Your task to perform on an android device: Set the phone to "Do not disturb". Image 0: 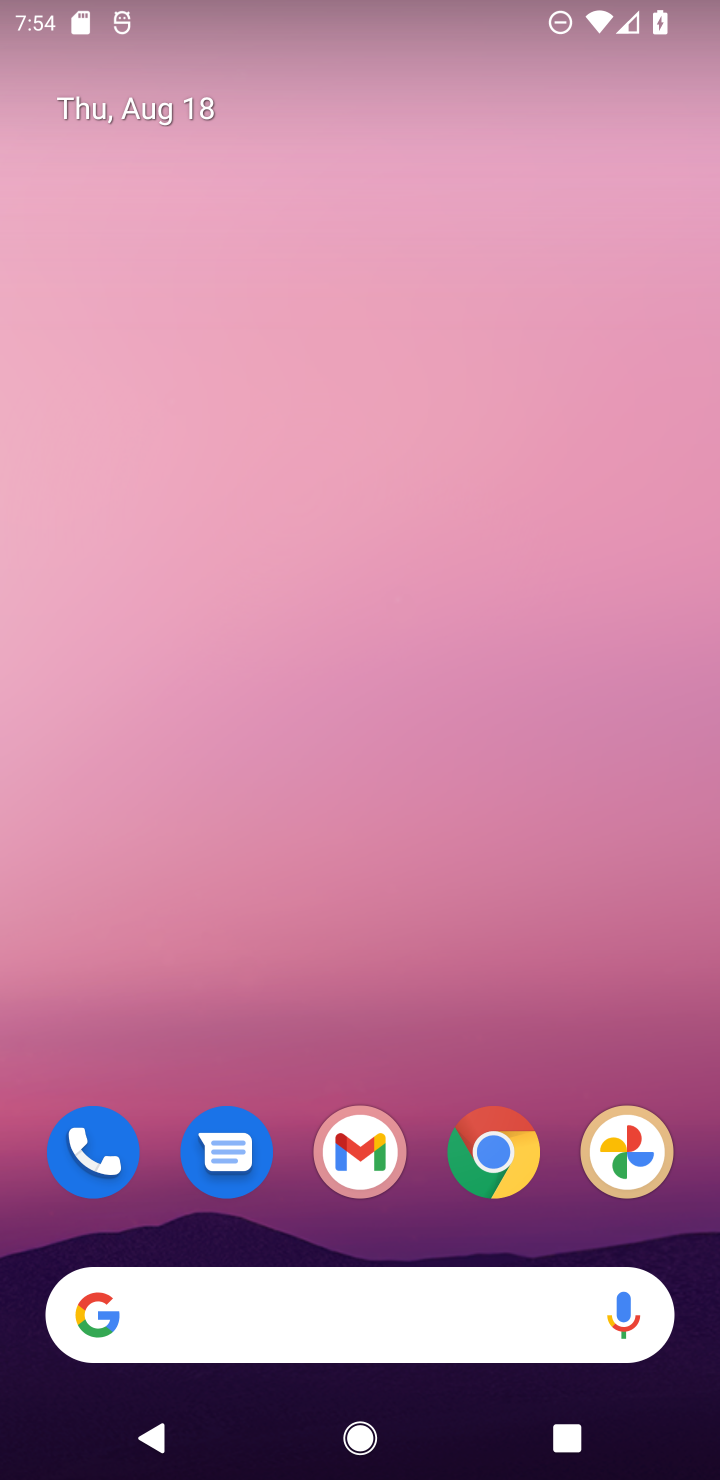
Step 0: press home button
Your task to perform on an android device: Set the phone to "Do not disturb". Image 1: 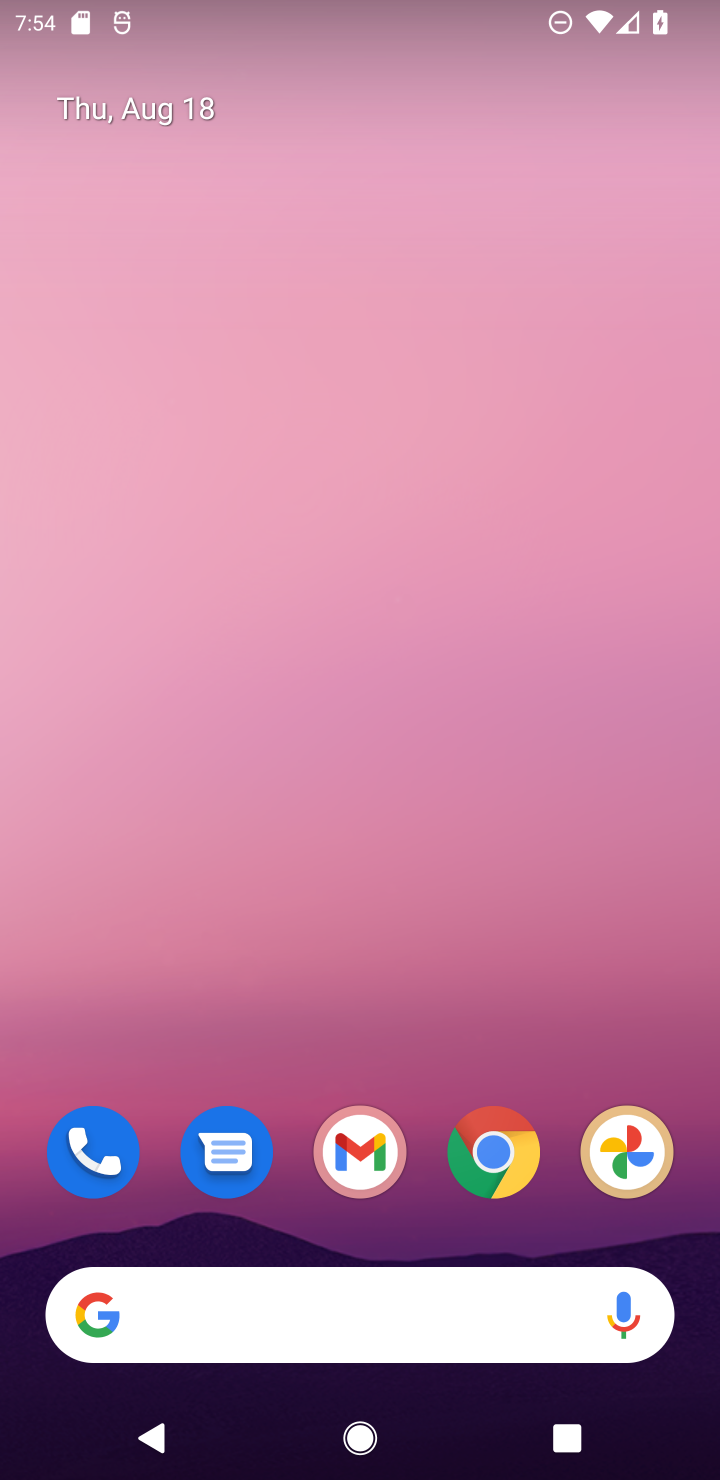
Step 1: task complete